Your task to perform on an android device: Add razer kraken to the cart on bestbuy, then select checkout. Image 0: 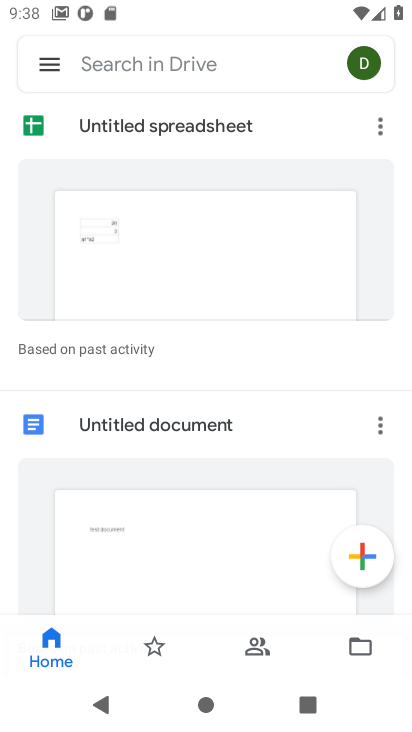
Step 0: press home button
Your task to perform on an android device: Add razer kraken to the cart on bestbuy, then select checkout. Image 1: 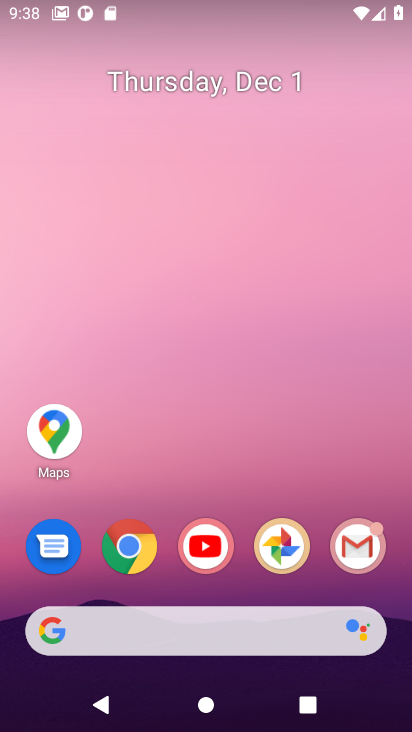
Step 1: click (134, 554)
Your task to perform on an android device: Add razer kraken to the cart on bestbuy, then select checkout. Image 2: 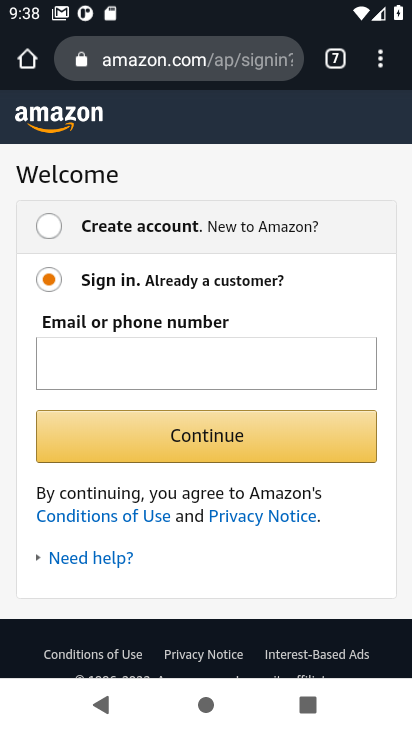
Step 2: click (178, 58)
Your task to perform on an android device: Add razer kraken to the cart on bestbuy, then select checkout. Image 3: 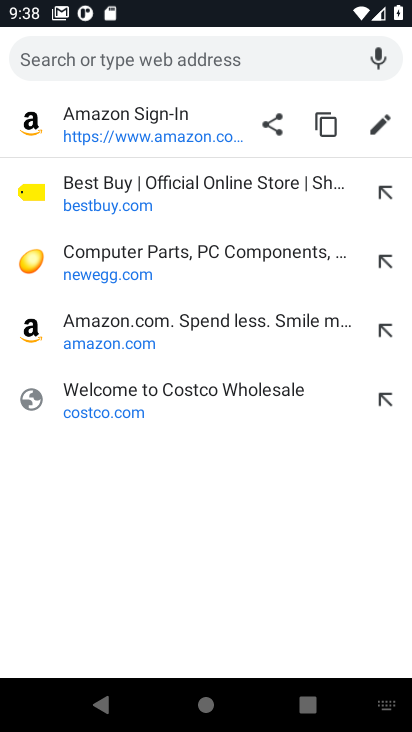
Step 3: click (121, 193)
Your task to perform on an android device: Add razer kraken to the cart on bestbuy, then select checkout. Image 4: 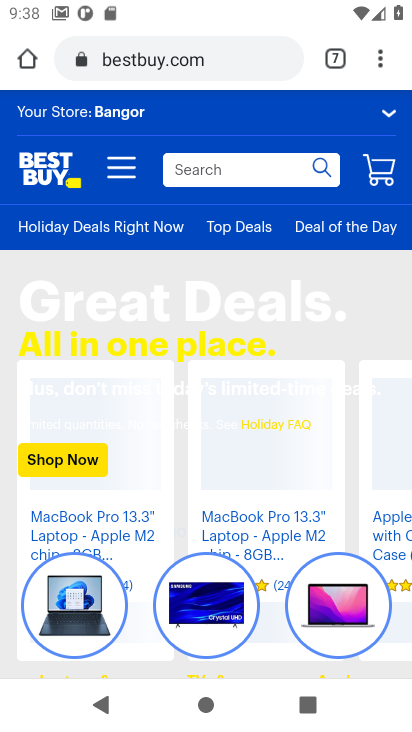
Step 4: click (220, 178)
Your task to perform on an android device: Add razer kraken to the cart on bestbuy, then select checkout. Image 5: 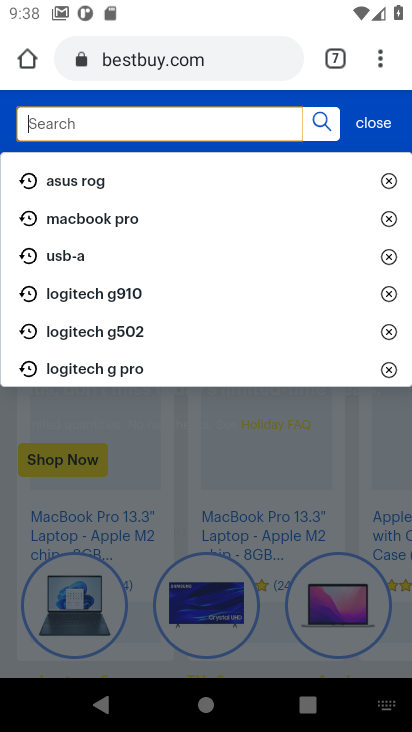
Step 5: type "razer kraken"
Your task to perform on an android device: Add razer kraken to the cart on bestbuy, then select checkout. Image 6: 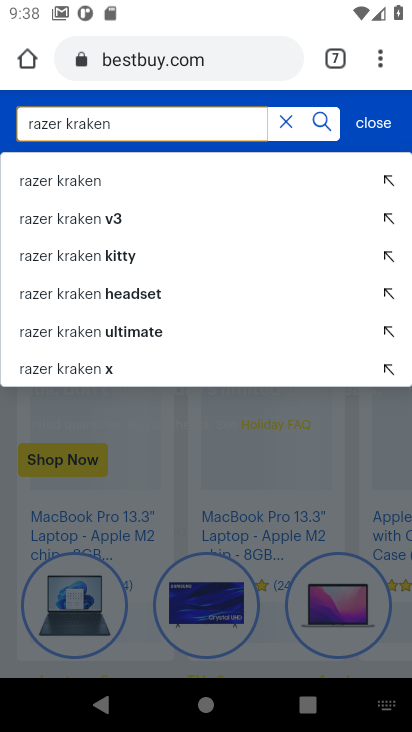
Step 6: click (65, 182)
Your task to perform on an android device: Add razer kraken to the cart on bestbuy, then select checkout. Image 7: 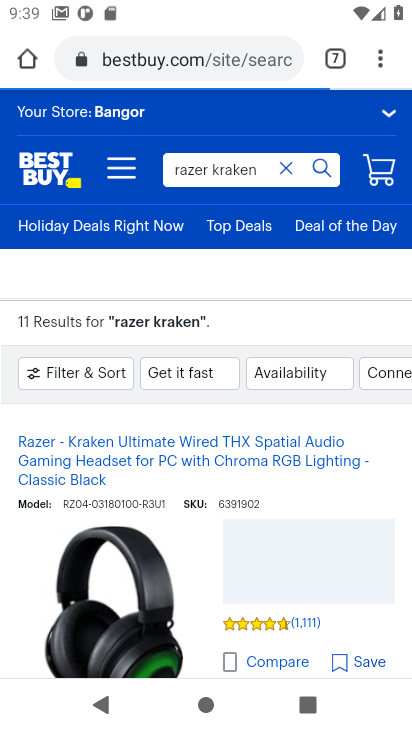
Step 7: drag from (185, 443) to (190, 268)
Your task to perform on an android device: Add razer kraken to the cart on bestbuy, then select checkout. Image 8: 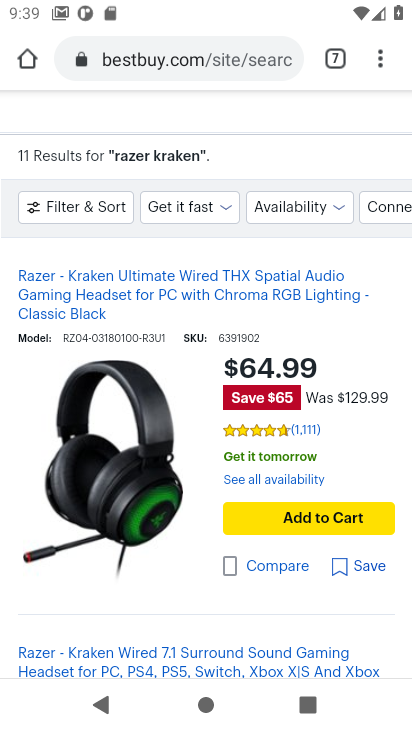
Step 8: click (274, 514)
Your task to perform on an android device: Add razer kraken to the cart on bestbuy, then select checkout. Image 9: 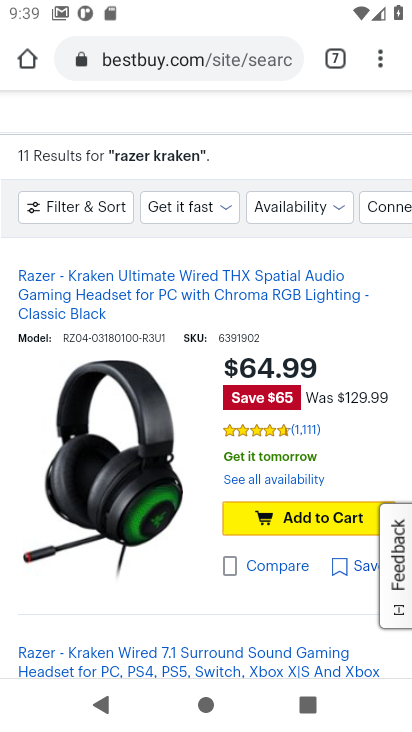
Step 9: click (309, 520)
Your task to perform on an android device: Add razer kraken to the cart on bestbuy, then select checkout. Image 10: 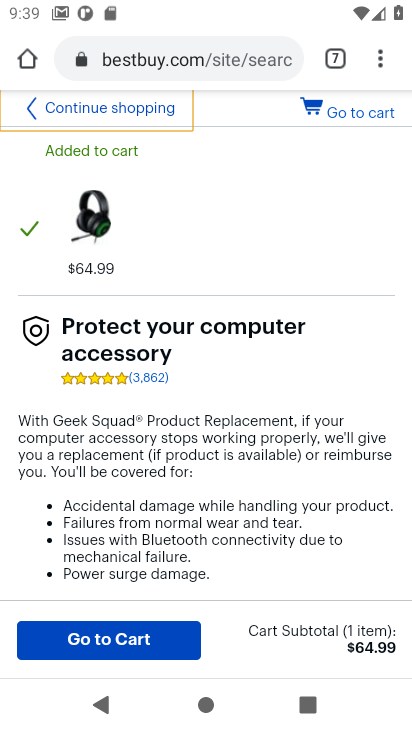
Step 10: click (352, 114)
Your task to perform on an android device: Add razer kraken to the cart on bestbuy, then select checkout. Image 11: 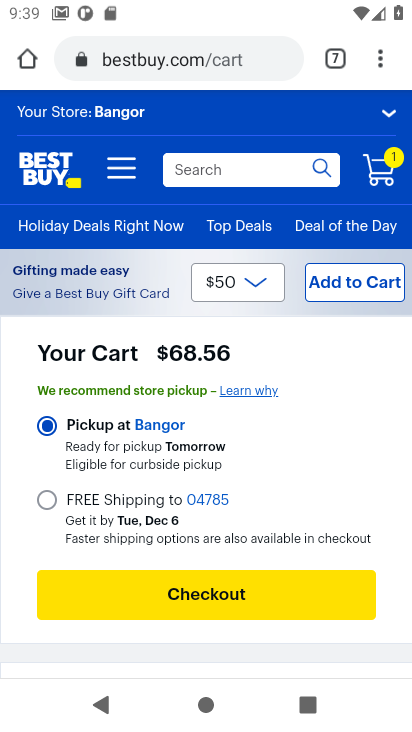
Step 11: click (189, 596)
Your task to perform on an android device: Add razer kraken to the cart on bestbuy, then select checkout. Image 12: 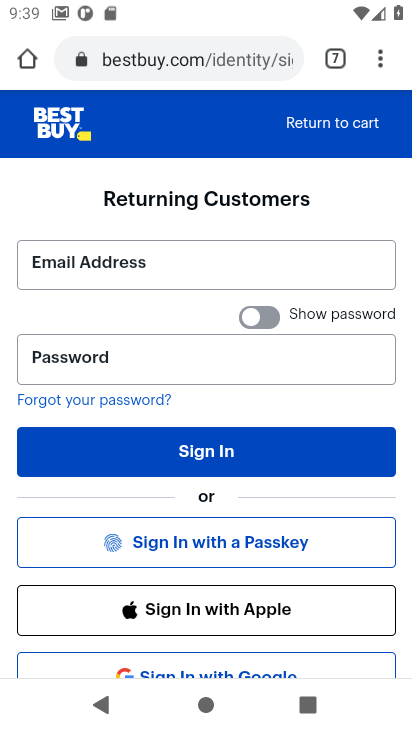
Step 12: task complete